Your task to perform on an android device: turn off location history Image 0: 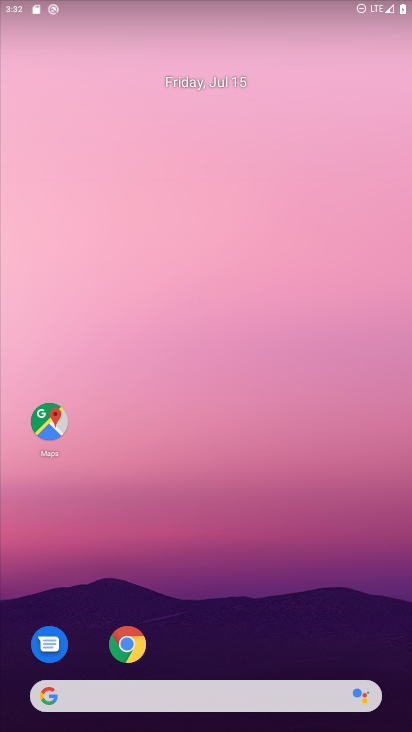
Step 0: press home button
Your task to perform on an android device: turn off location history Image 1: 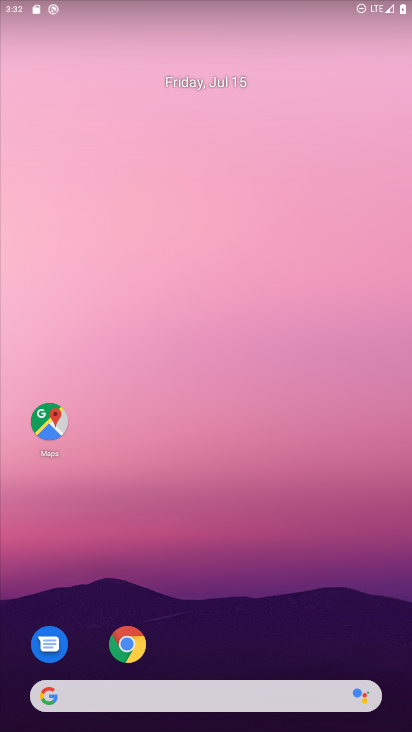
Step 1: drag from (14, 565) to (131, 212)
Your task to perform on an android device: turn off location history Image 2: 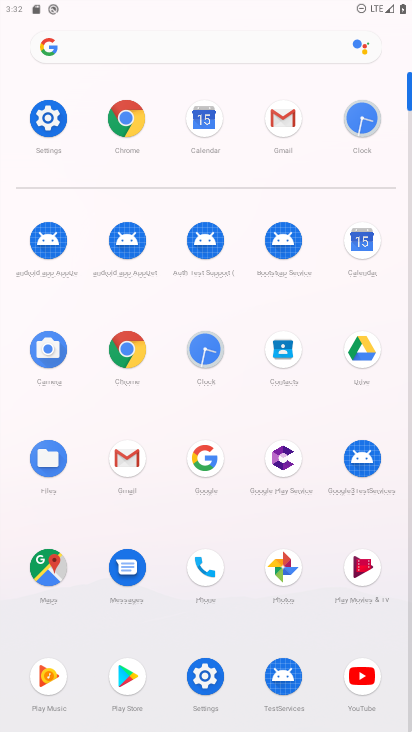
Step 2: click (29, 117)
Your task to perform on an android device: turn off location history Image 3: 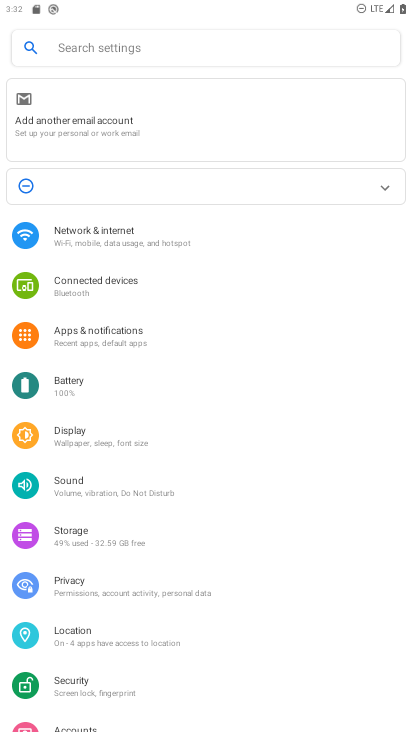
Step 3: click (102, 631)
Your task to perform on an android device: turn off location history Image 4: 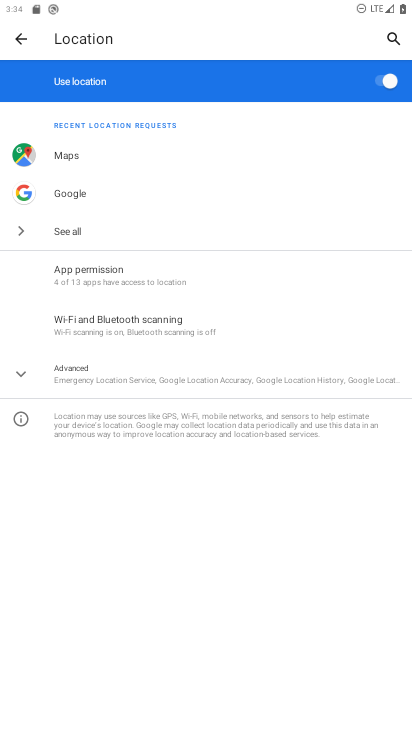
Step 4: click (153, 387)
Your task to perform on an android device: turn off location history Image 5: 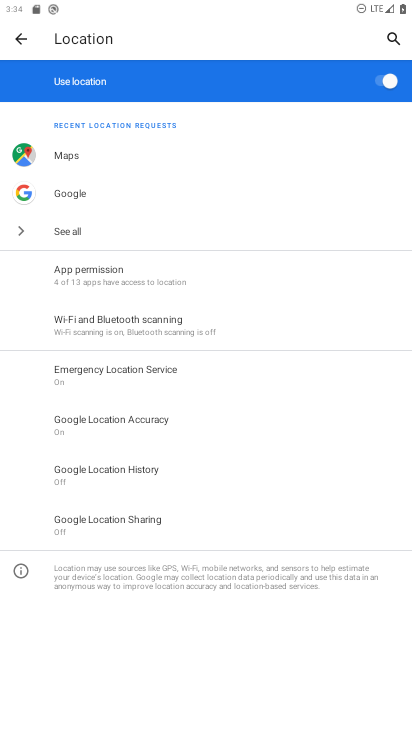
Step 5: task complete